Your task to perform on an android device: Toggle the flashlight Image 0: 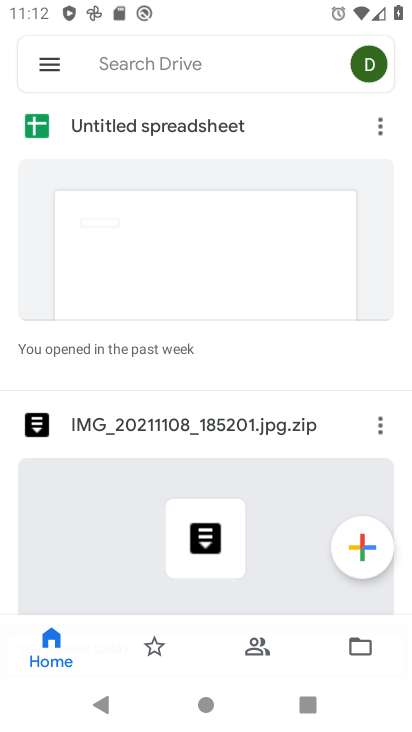
Step 0: press back button
Your task to perform on an android device: Toggle the flashlight Image 1: 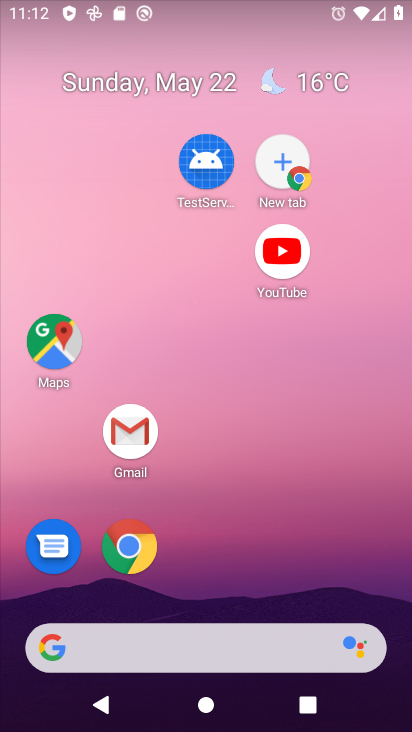
Step 1: task complete